Your task to perform on an android device: Open maps Image 0: 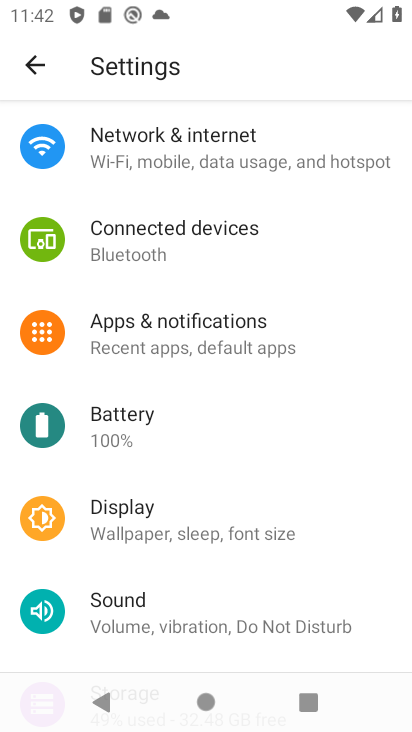
Step 0: press home button
Your task to perform on an android device: Open maps Image 1: 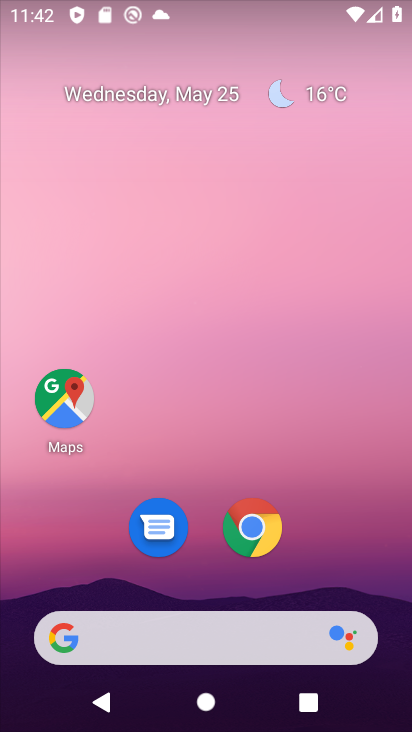
Step 1: drag from (211, 590) to (145, 95)
Your task to perform on an android device: Open maps Image 2: 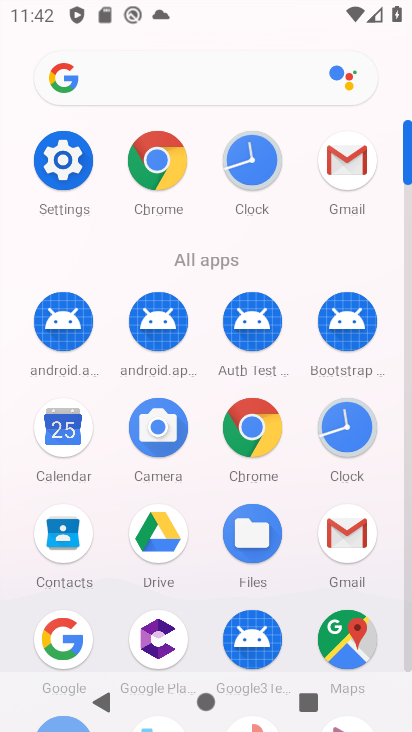
Step 2: click (336, 643)
Your task to perform on an android device: Open maps Image 3: 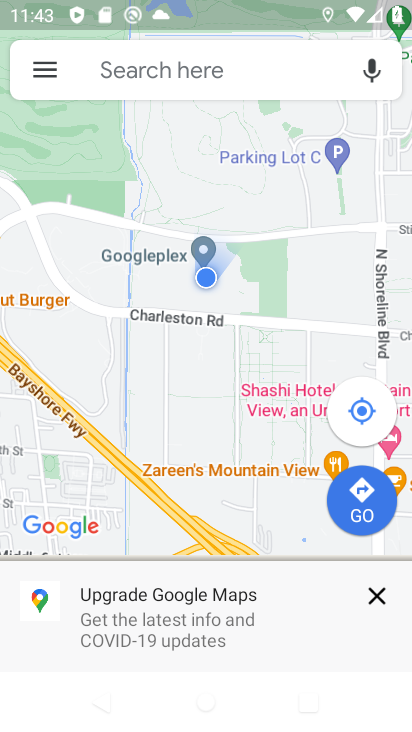
Step 3: click (39, 77)
Your task to perform on an android device: Open maps Image 4: 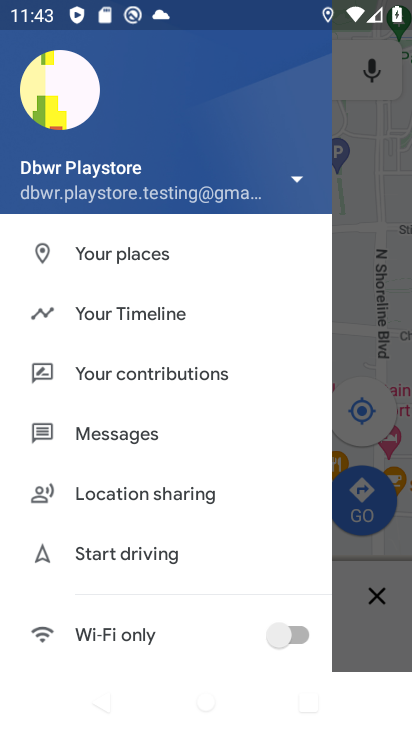
Step 4: click (154, 311)
Your task to perform on an android device: Open maps Image 5: 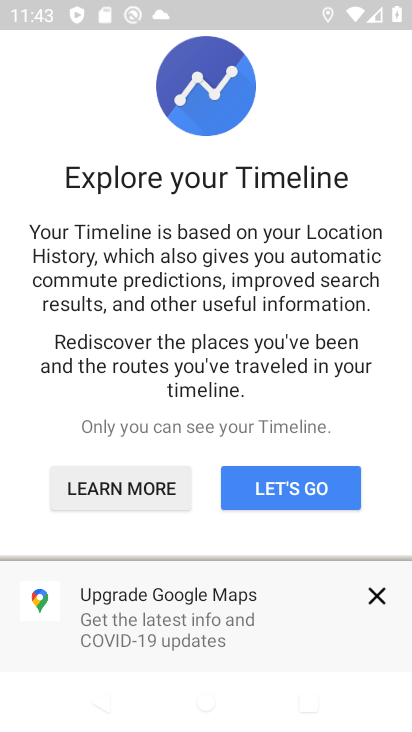
Step 5: click (306, 494)
Your task to perform on an android device: Open maps Image 6: 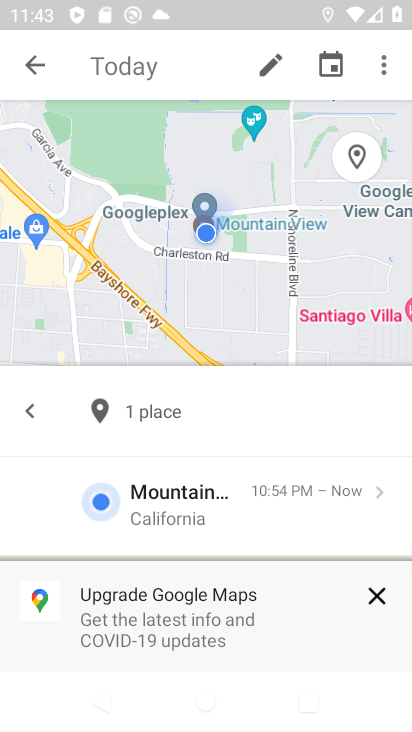
Step 6: click (371, 591)
Your task to perform on an android device: Open maps Image 7: 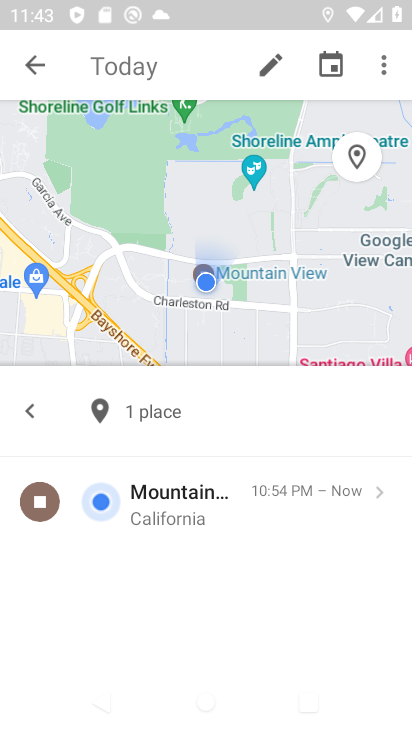
Step 7: task complete